Your task to perform on an android device: turn off smart reply in the gmail app Image 0: 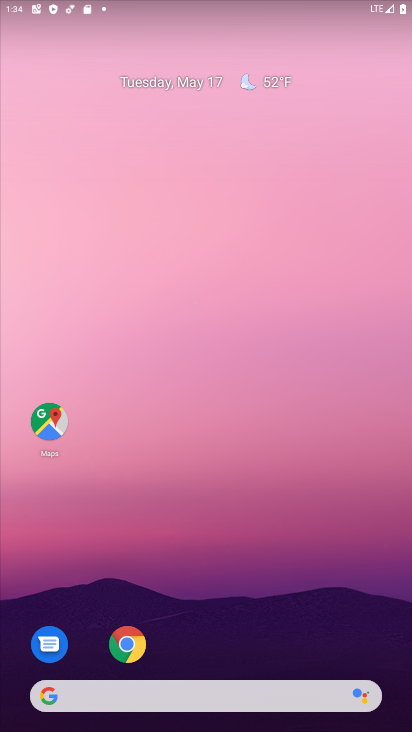
Step 0: drag from (213, 685) to (322, 149)
Your task to perform on an android device: turn off smart reply in the gmail app Image 1: 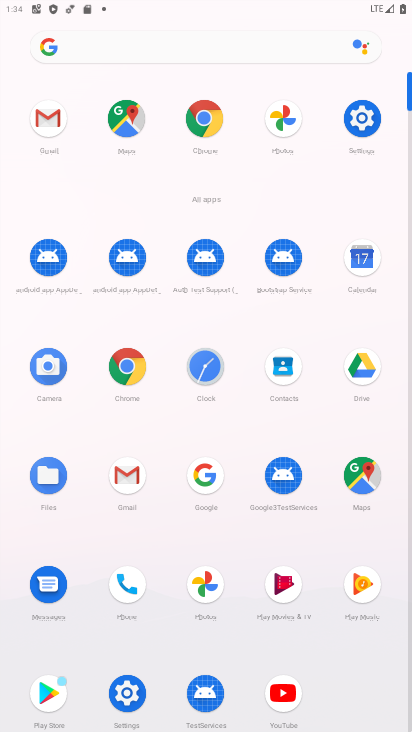
Step 1: click (137, 492)
Your task to perform on an android device: turn off smart reply in the gmail app Image 2: 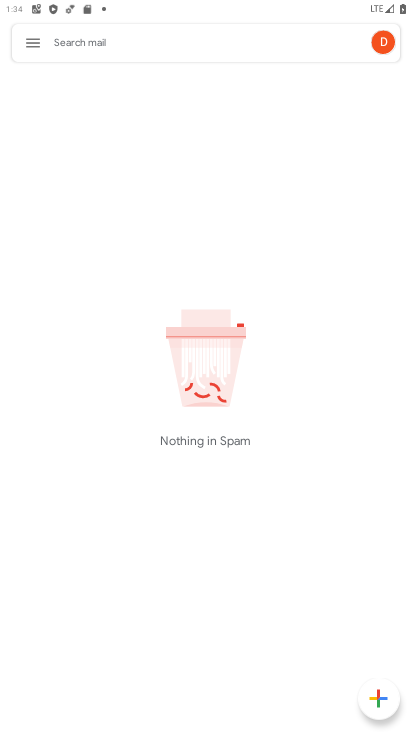
Step 2: click (37, 35)
Your task to perform on an android device: turn off smart reply in the gmail app Image 3: 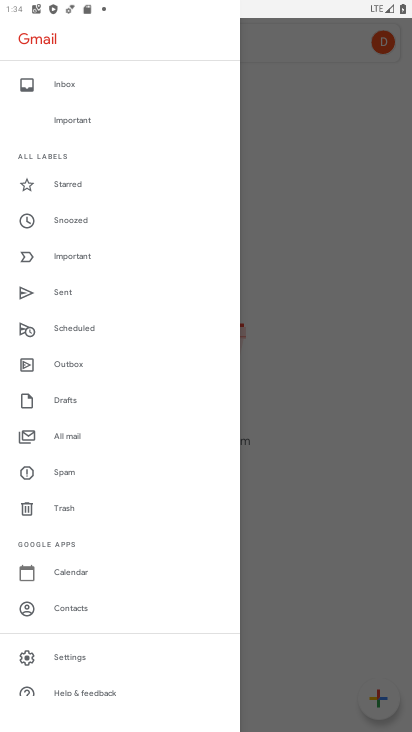
Step 3: click (94, 653)
Your task to perform on an android device: turn off smart reply in the gmail app Image 4: 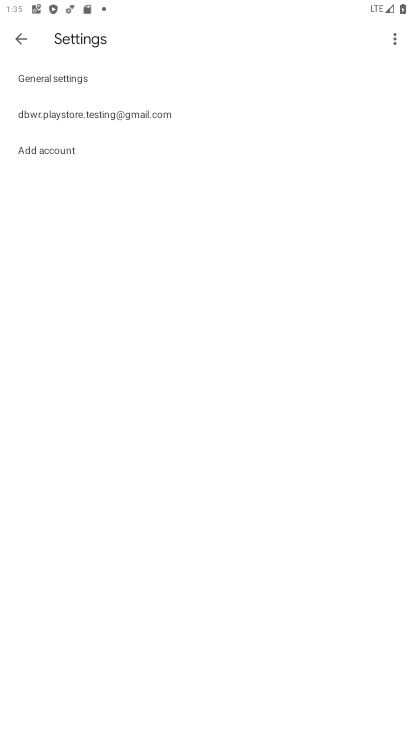
Step 4: click (96, 114)
Your task to perform on an android device: turn off smart reply in the gmail app Image 5: 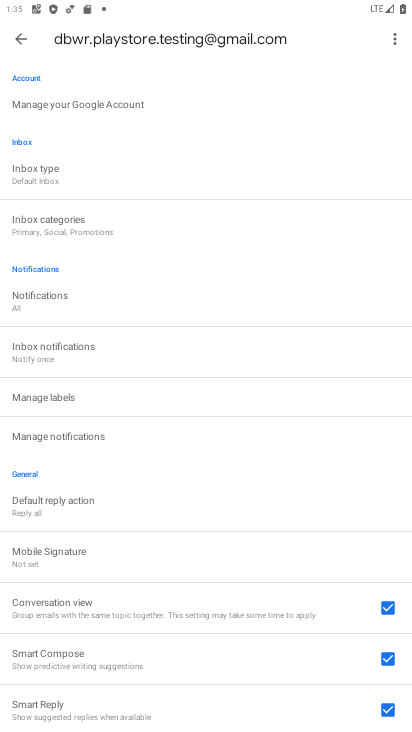
Step 5: drag from (186, 648) to (225, 279)
Your task to perform on an android device: turn off smart reply in the gmail app Image 6: 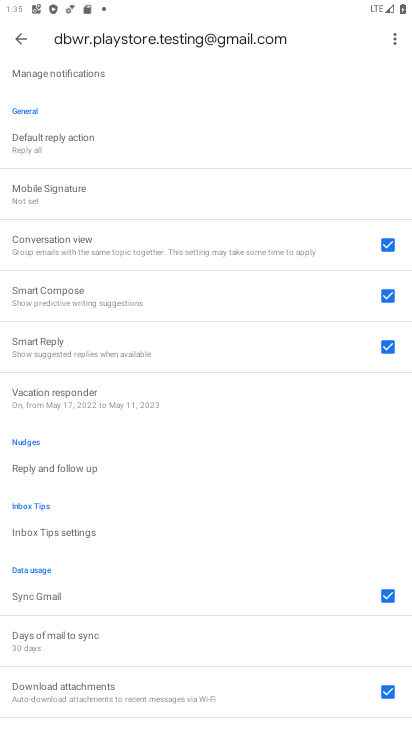
Step 6: click (386, 352)
Your task to perform on an android device: turn off smart reply in the gmail app Image 7: 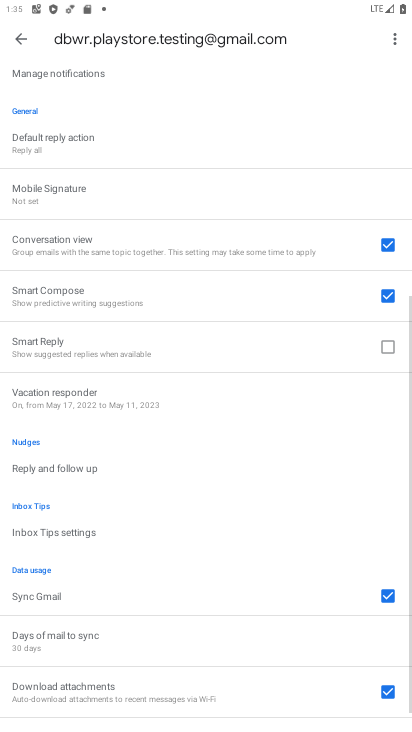
Step 7: task complete